Your task to perform on an android device: Find coffee shops on Maps Image 0: 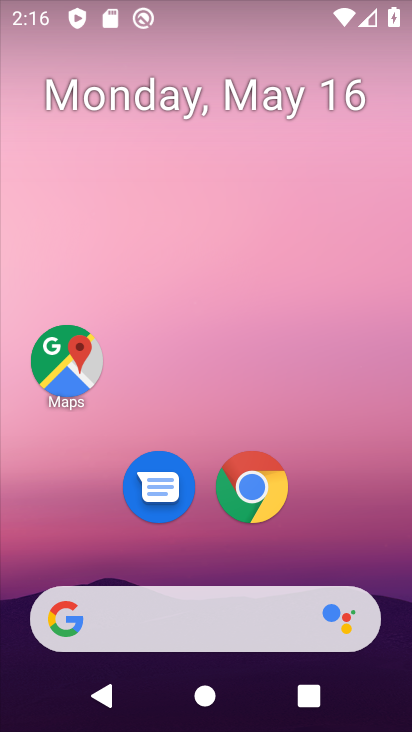
Step 0: click (65, 364)
Your task to perform on an android device: Find coffee shops on Maps Image 1: 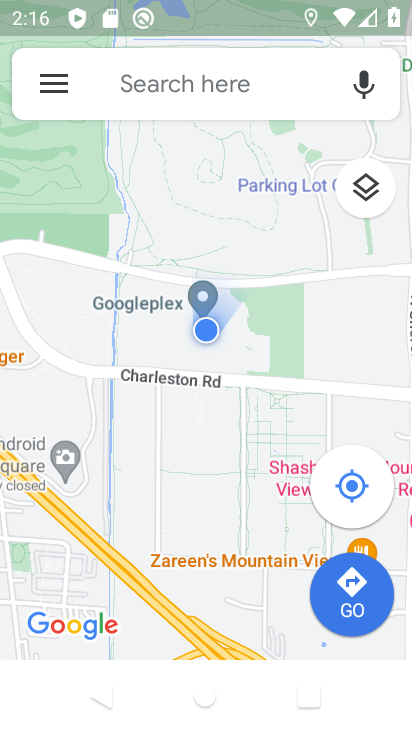
Step 1: click (154, 72)
Your task to perform on an android device: Find coffee shops on Maps Image 2: 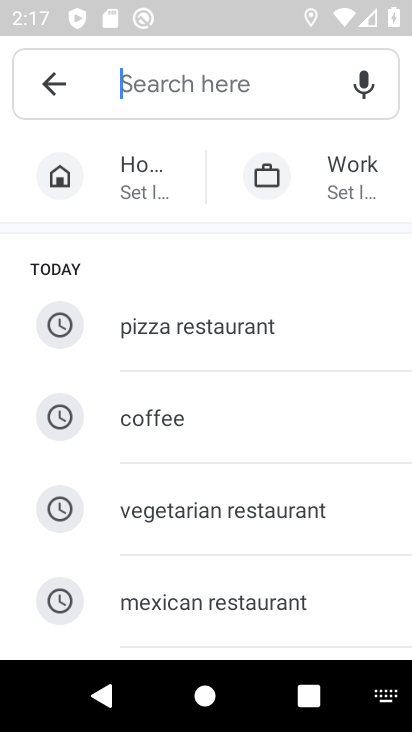
Step 2: type "coffee shops"
Your task to perform on an android device: Find coffee shops on Maps Image 3: 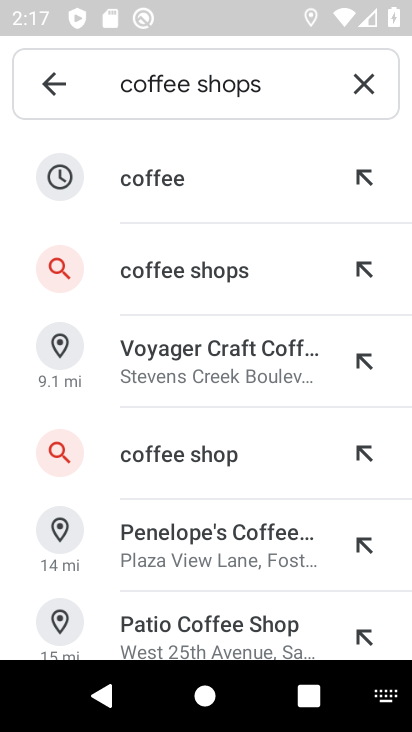
Step 3: click (192, 269)
Your task to perform on an android device: Find coffee shops on Maps Image 4: 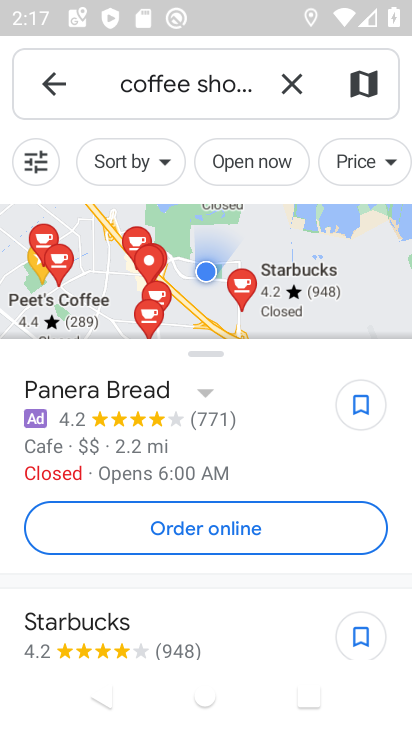
Step 4: task complete